Your task to perform on an android device: turn on the 12-hour format for clock Image 0: 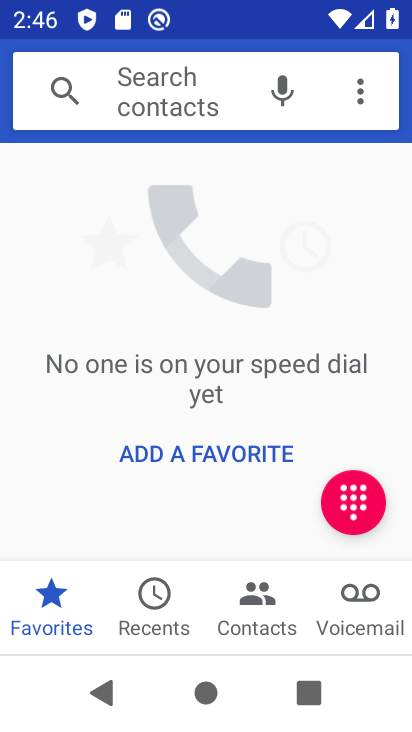
Step 0: press home button
Your task to perform on an android device: turn on the 12-hour format for clock Image 1: 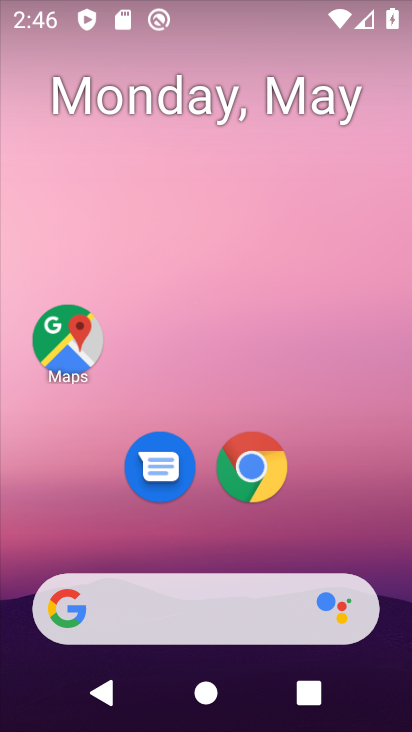
Step 1: drag from (342, 528) to (308, 15)
Your task to perform on an android device: turn on the 12-hour format for clock Image 2: 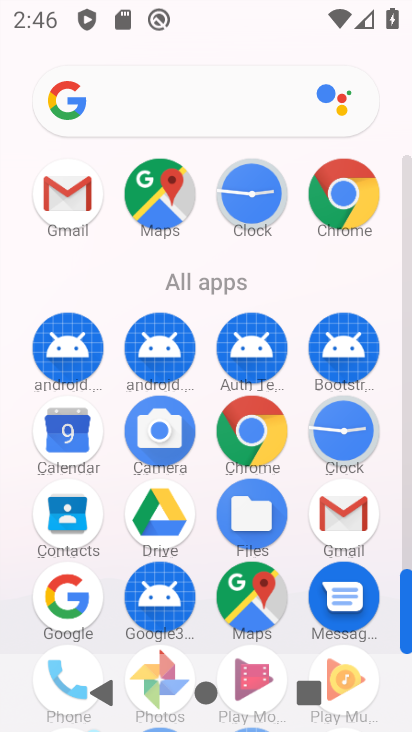
Step 2: click (345, 417)
Your task to perform on an android device: turn on the 12-hour format for clock Image 3: 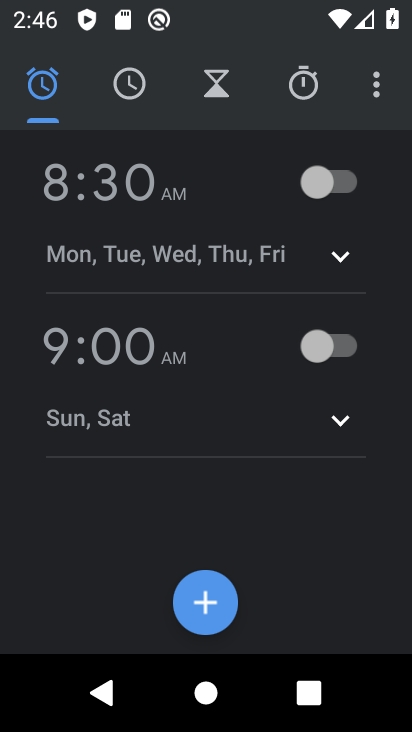
Step 3: click (373, 76)
Your task to perform on an android device: turn on the 12-hour format for clock Image 4: 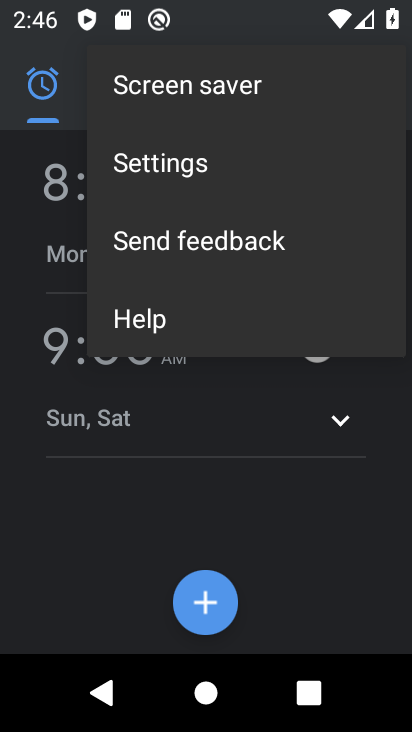
Step 4: click (281, 169)
Your task to perform on an android device: turn on the 12-hour format for clock Image 5: 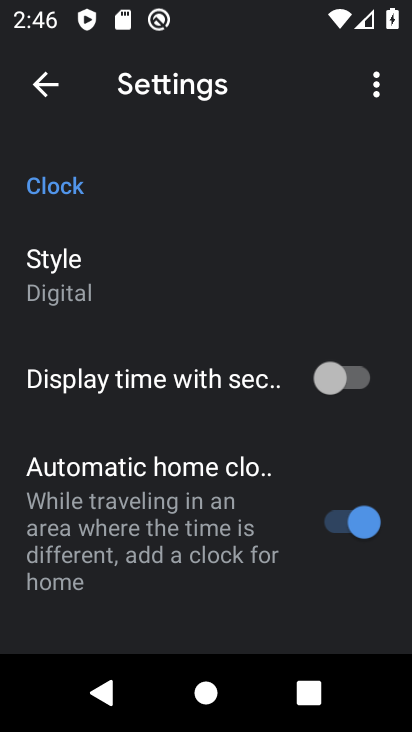
Step 5: drag from (205, 536) to (180, 284)
Your task to perform on an android device: turn on the 12-hour format for clock Image 6: 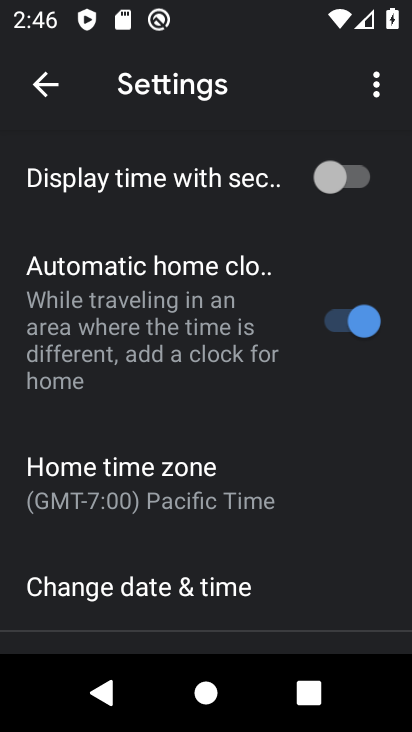
Step 6: click (144, 602)
Your task to perform on an android device: turn on the 12-hour format for clock Image 7: 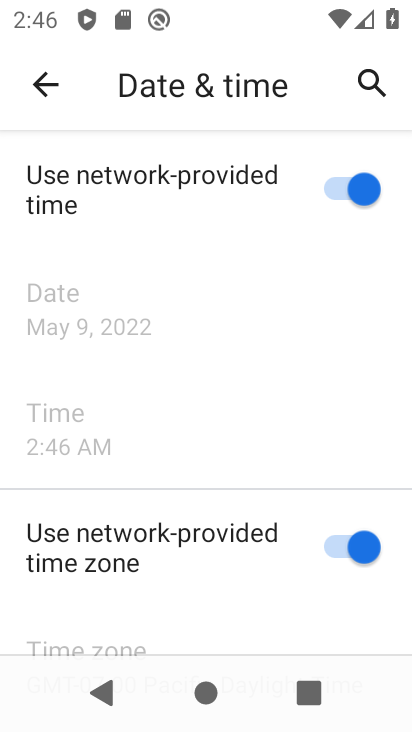
Step 7: task complete